Your task to perform on an android device: Open eBay Image 0: 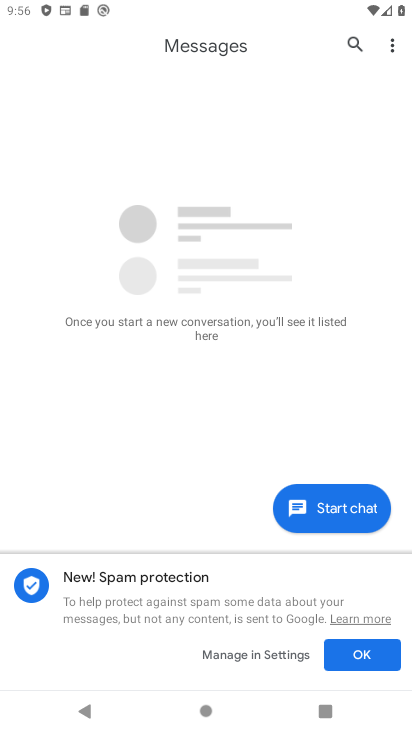
Step 0: press home button
Your task to perform on an android device: Open eBay Image 1: 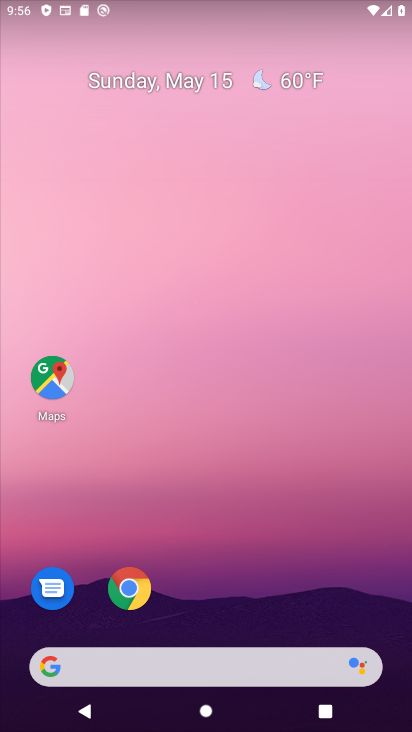
Step 1: click (142, 592)
Your task to perform on an android device: Open eBay Image 2: 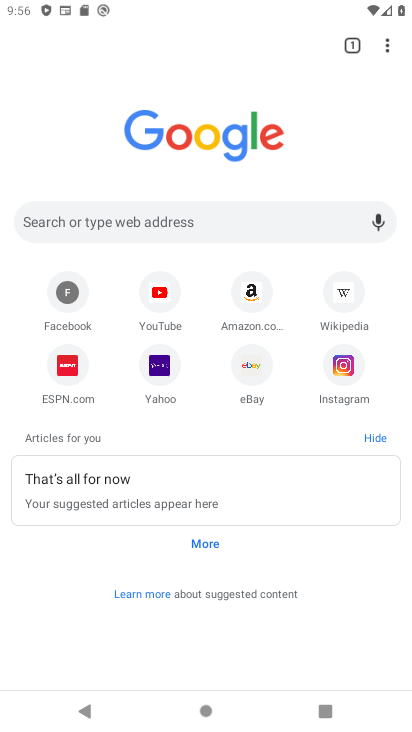
Step 2: click (249, 370)
Your task to perform on an android device: Open eBay Image 3: 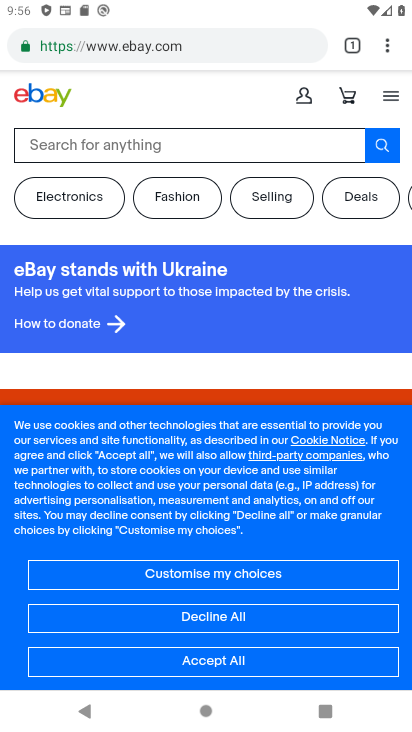
Step 3: task complete